Your task to perform on an android device: add a contact Image 0: 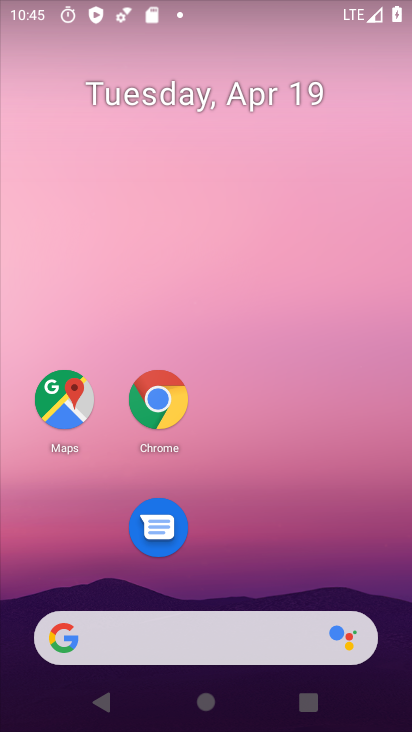
Step 0: click (245, 271)
Your task to perform on an android device: add a contact Image 1: 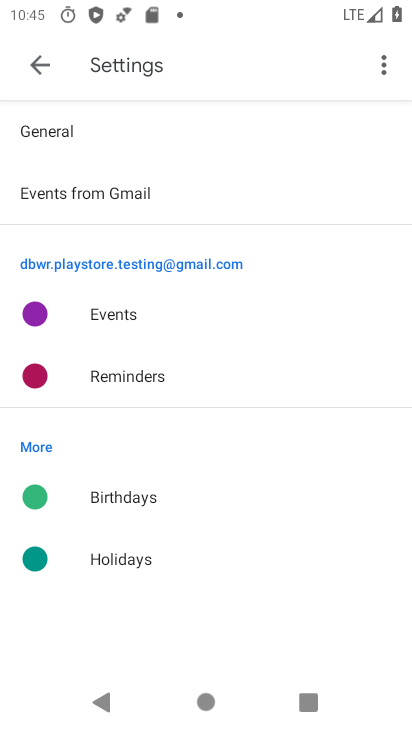
Step 1: press home button
Your task to perform on an android device: add a contact Image 2: 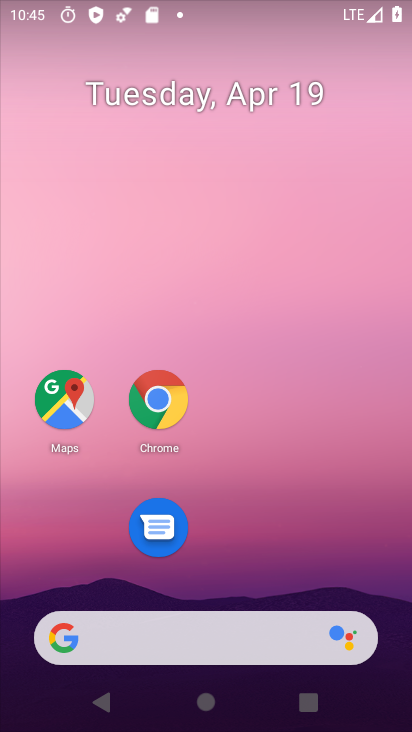
Step 2: drag from (250, 671) to (273, 149)
Your task to perform on an android device: add a contact Image 3: 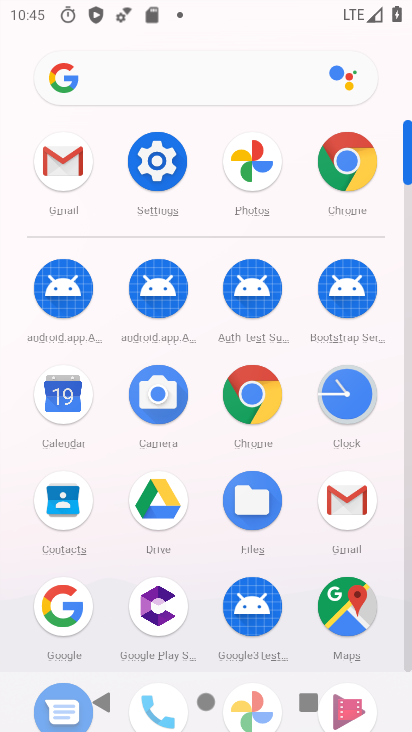
Step 3: drag from (114, 552) to (173, 264)
Your task to perform on an android device: add a contact Image 4: 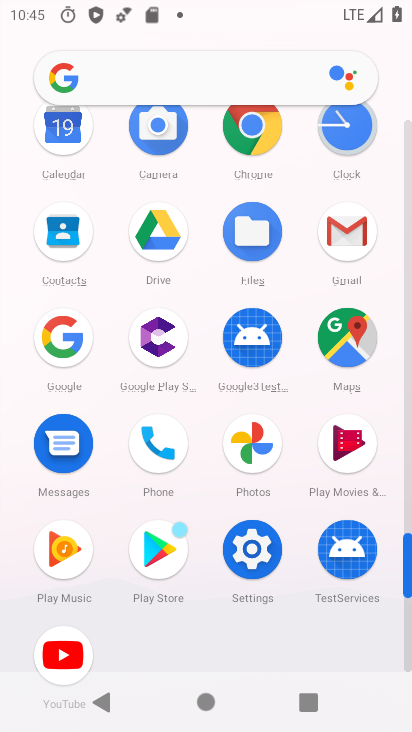
Step 4: click (154, 432)
Your task to perform on an android device: add a contact Image 5: 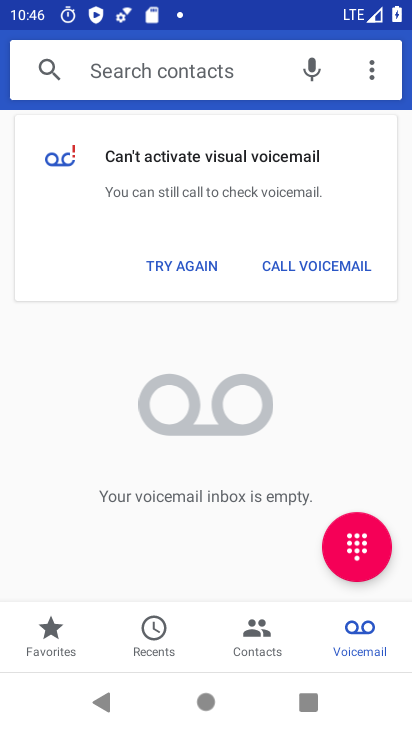
Step 5: click (265, 629)
Your task to perform on an android device: add a contact Image 6: 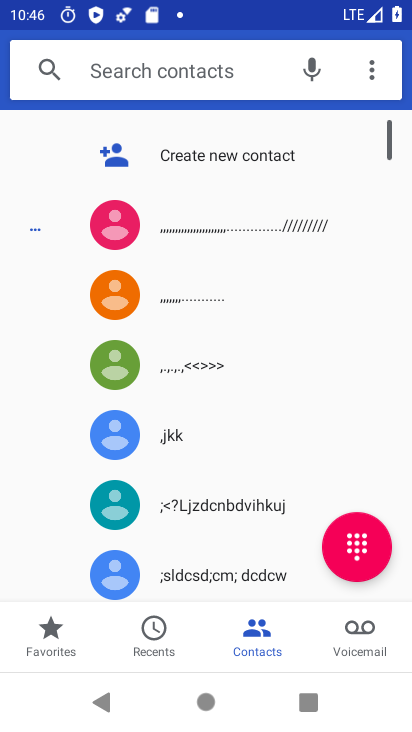
Step 6: click (189, 152)
Your task to perform on an android device: add a contact Image 7: 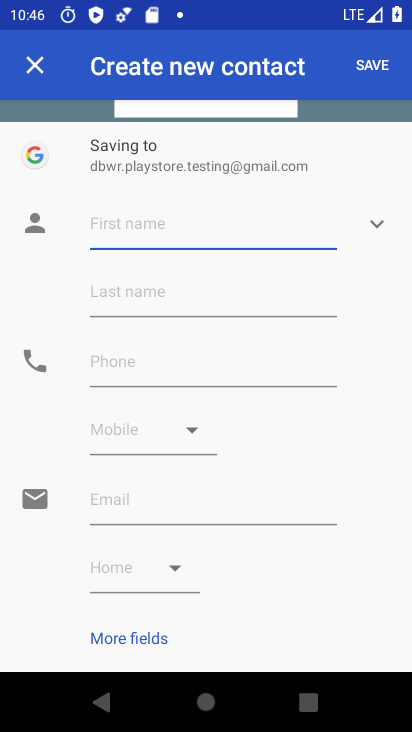
Step 7: click (139, 235)
Your task to perform on an android device: add a contact Image 8: 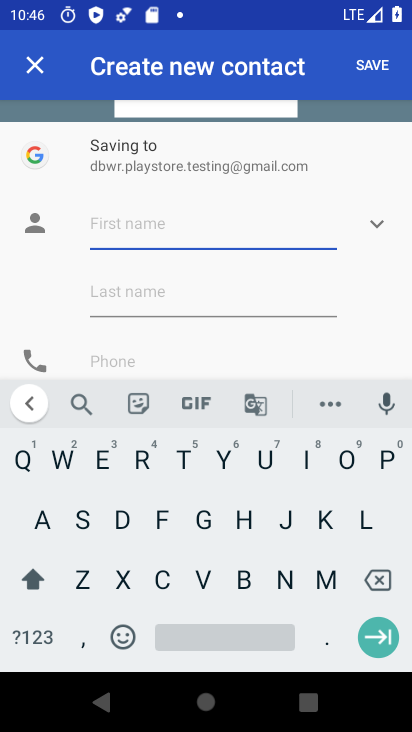
Step 8: click (288, 519)
Your task to perform on an android device: add a contact Image 9: 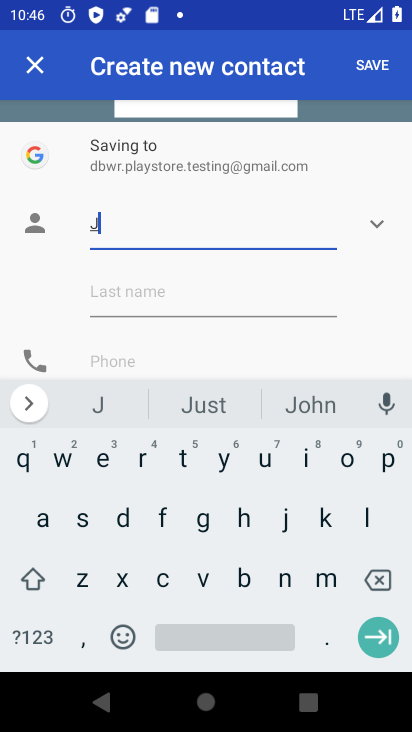
Step 9: click (346, 462)
Your task to perform on an android device: add a contact Image 10: 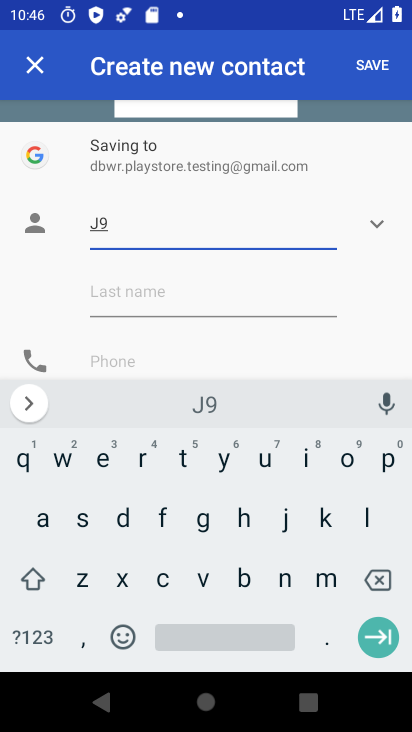
Step 10: click (377, 577)
Your task to perform on an android device: add a contact Image 11: 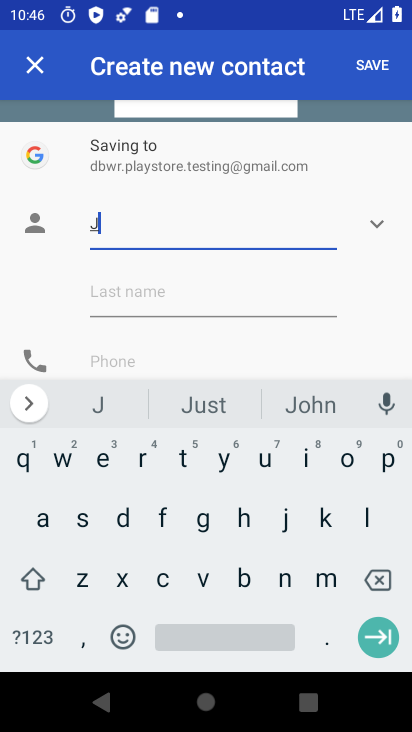
Step 11: click (346, 463)
Your task to perform on an android device: add a contact Image 12: 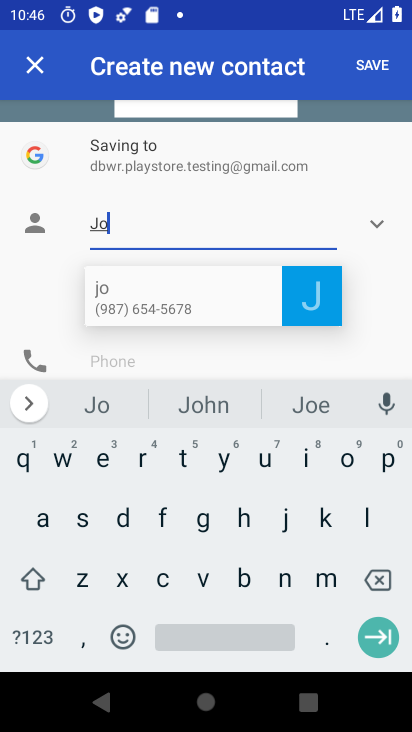
Step 12: click (281, 576)
Your task to perform on an android device: add a contact Image 13: 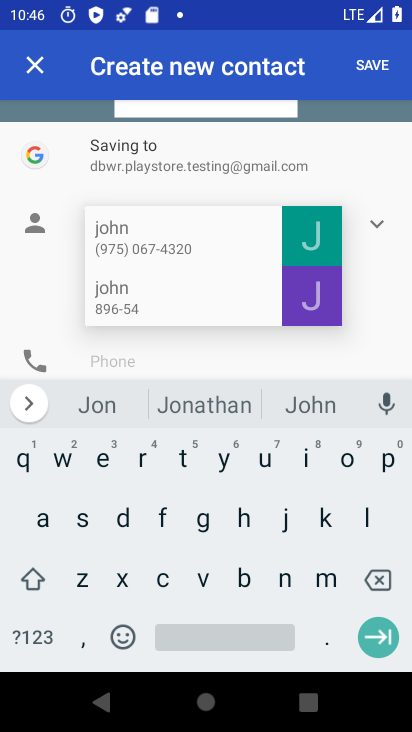
Step 13: click (219, 408)
Your task to perform on an android device: add a contact Image 14: 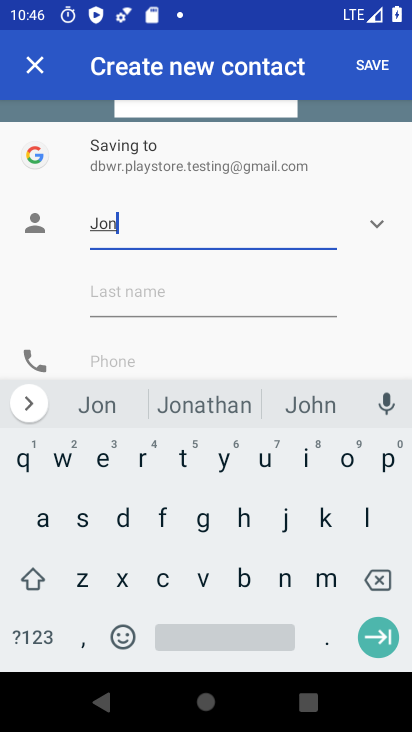
Step 14: click (219, 408)
Your task to perform on an android device: add a contact Image 15: 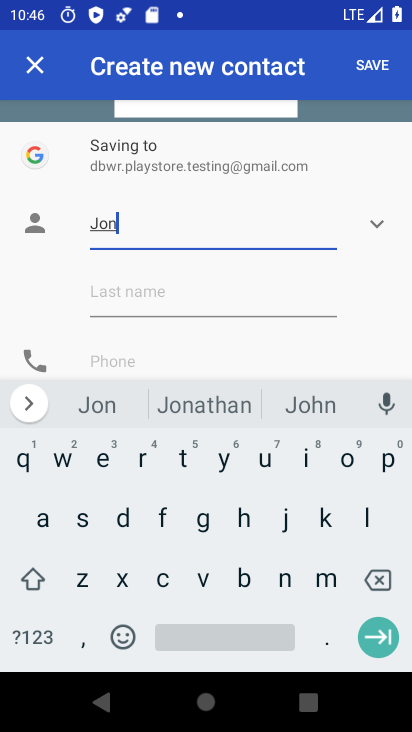
Step 15: click (179, 341)
Your task to perform on an android device: add a contact Image 16: 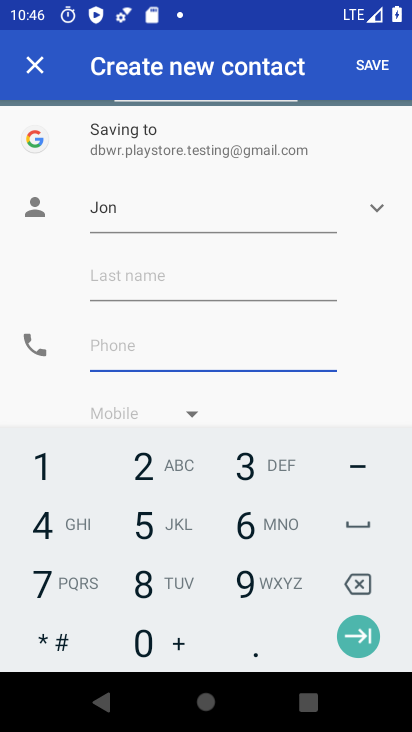
Step 16: click (241, 526)
Your task to perform on an android device: add a contact Image 17: 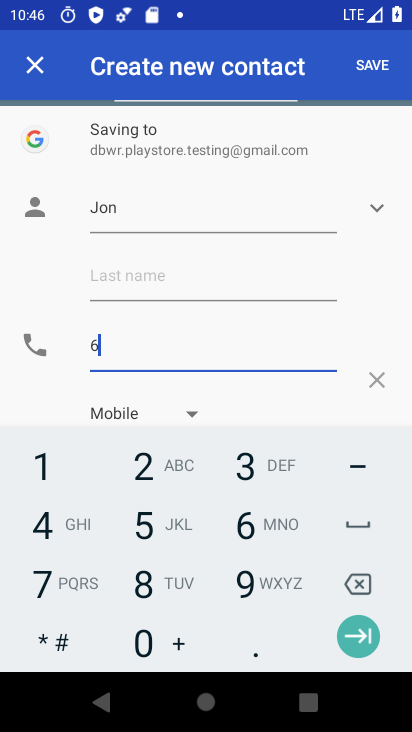
Step 17: click (150, 580)
Your task to perform on an android device: add a contact Image 18: 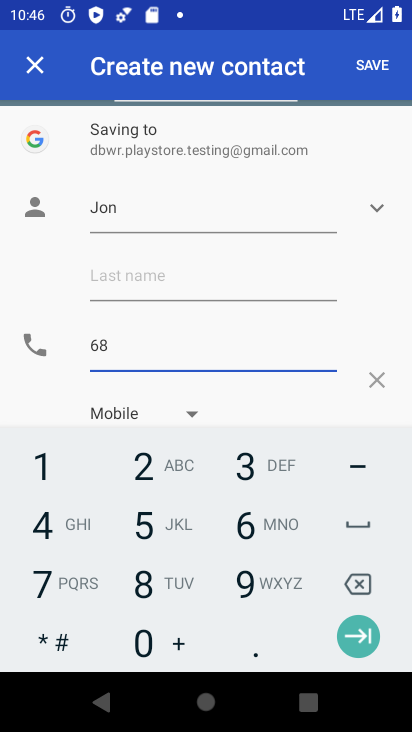
Step 18: click (136, 520)
Your task to perform on an android device: add a contact Image 19: 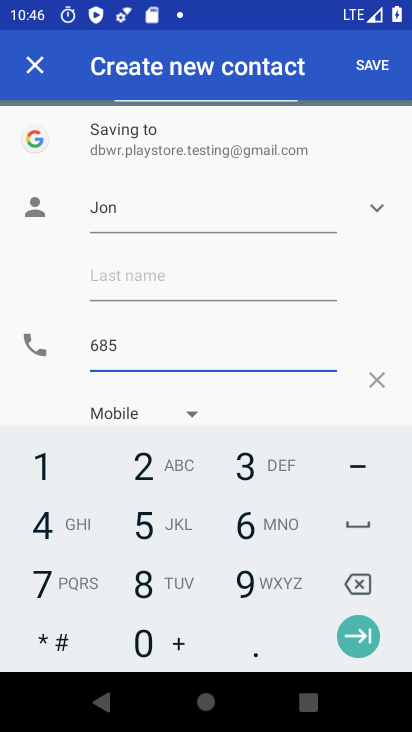
Step 19: click (149, 461)
Your task to perform on an android device: add a contact Image 20: 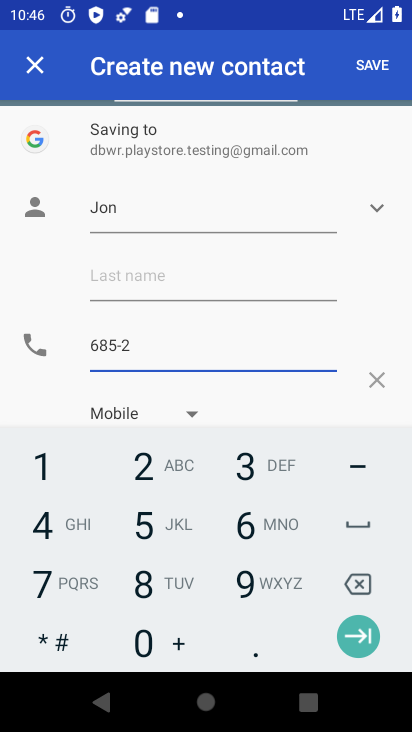
Step 20: click (165, 521)
Your task to perform on an android device: add a contact Image 21: 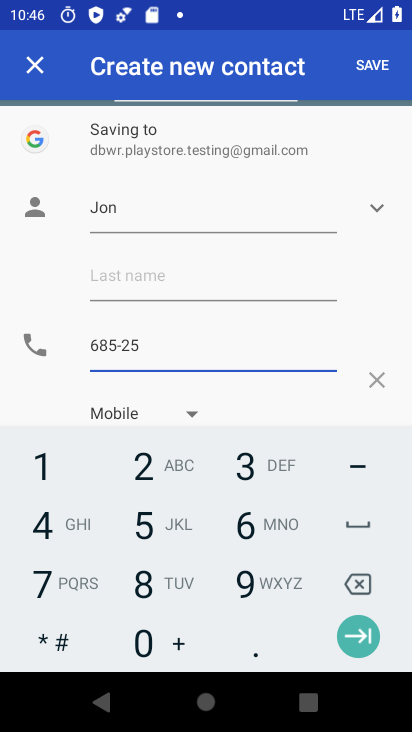
Step 21: click (219, 526)
Your task to perform on an android device: add a contact Image 22: 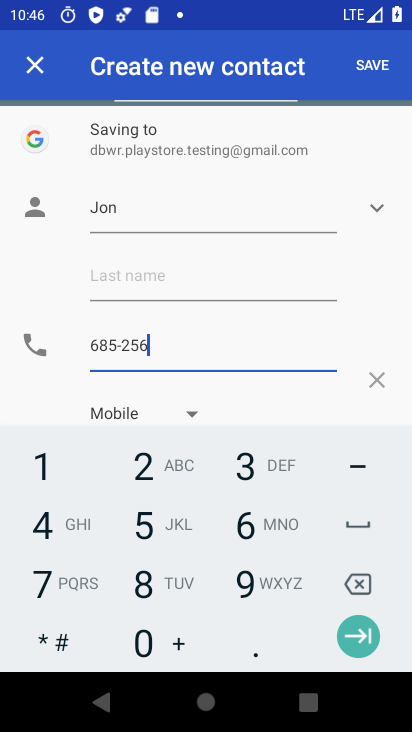
Step 22: click (126, 465)
Your task to perform on an android device: add a contact Image 23: 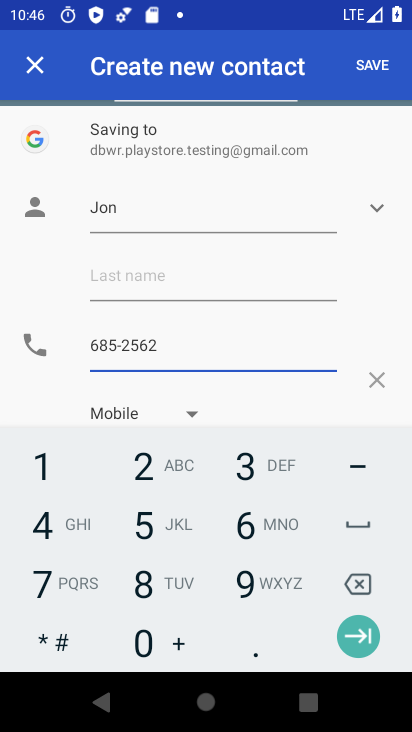
Step 23: click (50, 469)
Your task to perform on an android device: add a contact Image 24: 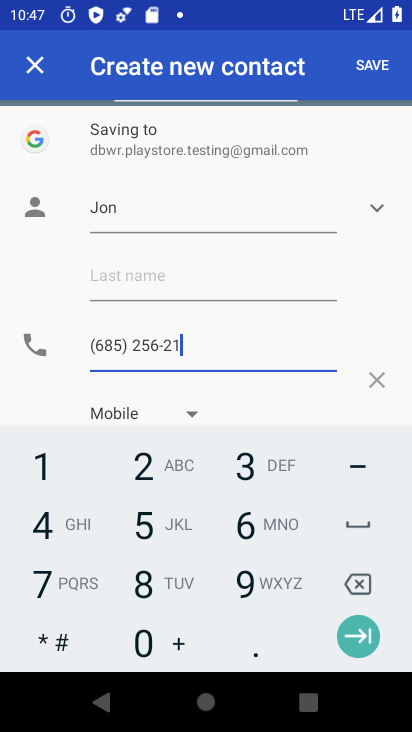
Step 24: click (386, 74)
Your task to perform on an android device: add a contact Image 25: 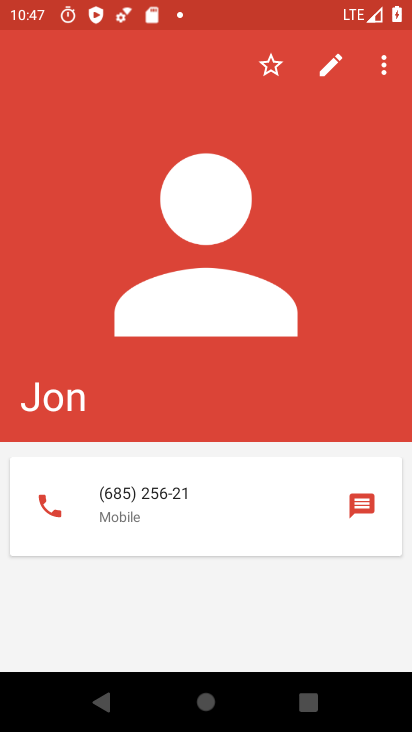
Step 25: task complete